Your task to perform on an android device: Open the web browser Image 0: 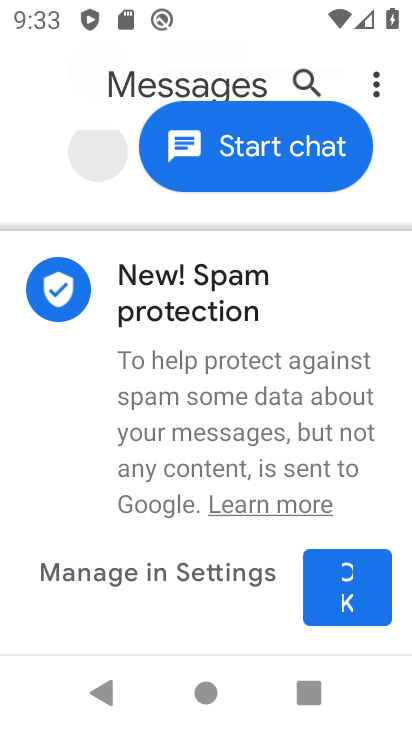
Step 0: press home button
Your task to perform on an android device: Open the web browser Image 1: 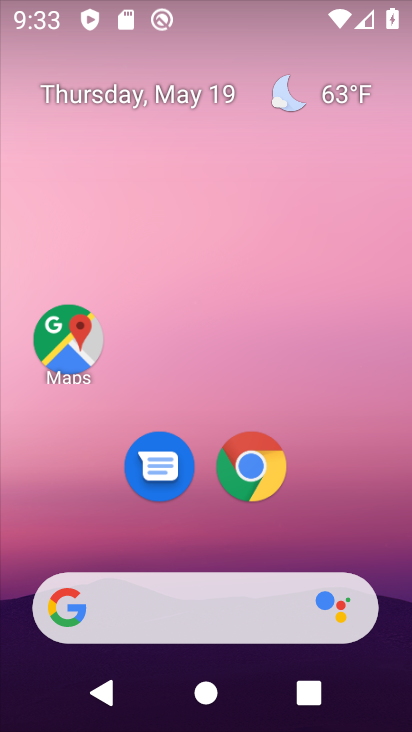
Step 1: drag from (390, 620) to (347, 105)
Your task to perform on an android device: Open the web browser Image 2: 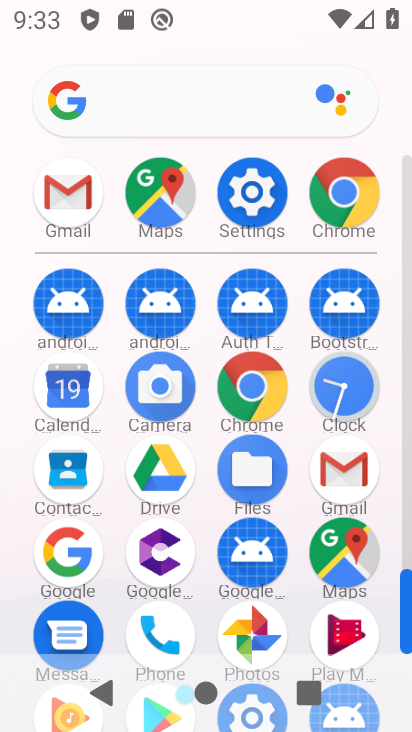
Step 2: click (355, 215)
Your task to perform on an android device: Open the web browser Image 3: 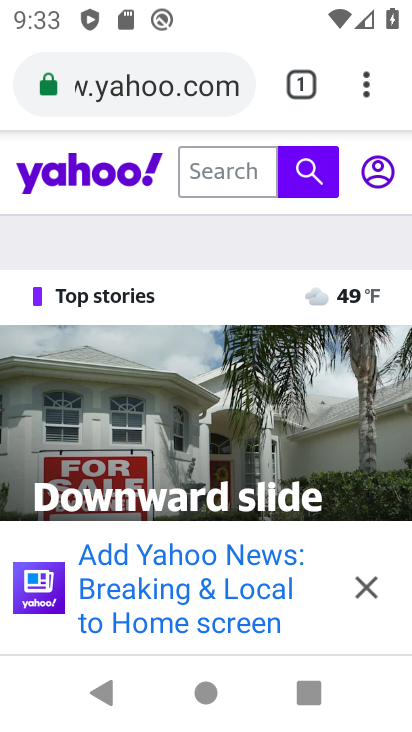
Step 3: task complete